Your task to perform on an android device: turn on bluetooth scan Image 0: 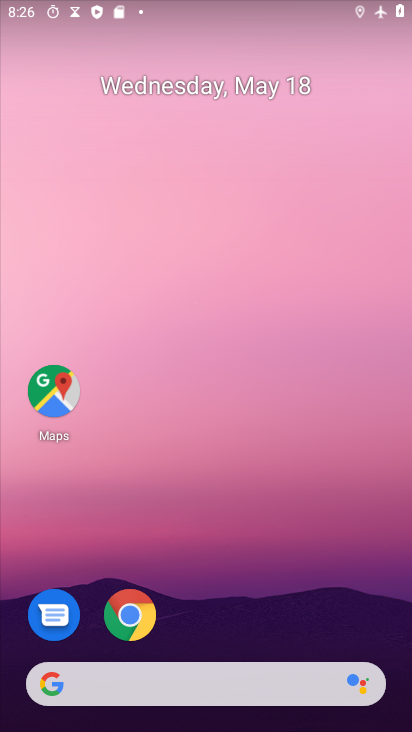
Step 0: drag from (243, 610) to (268, 123)
Your task to perform on an android device: turn on bluetooth scan Image 1: 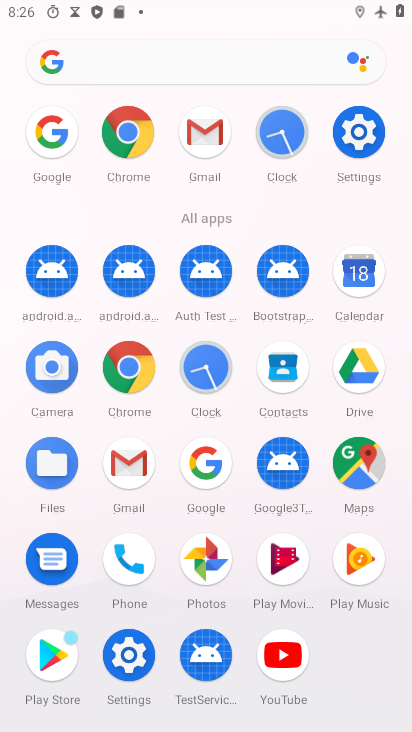
Step 1: click (368, 141)
Your task to perform on an android device: turn on bluetooth scan Image 2: 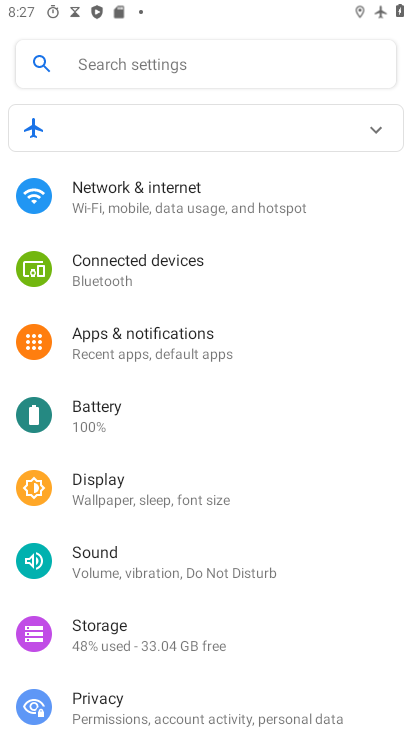
Step 2: drag from (236, 642) to (214, 309)
Your task to perform on an android device: turn on bluetooth scan Image 3: 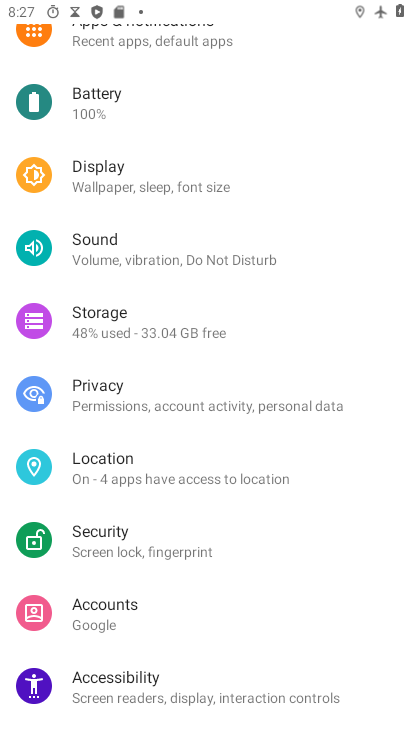
Step 3: click (198, 475)
Your task to perform on an android device: turn on bluetooth scan Image 4: 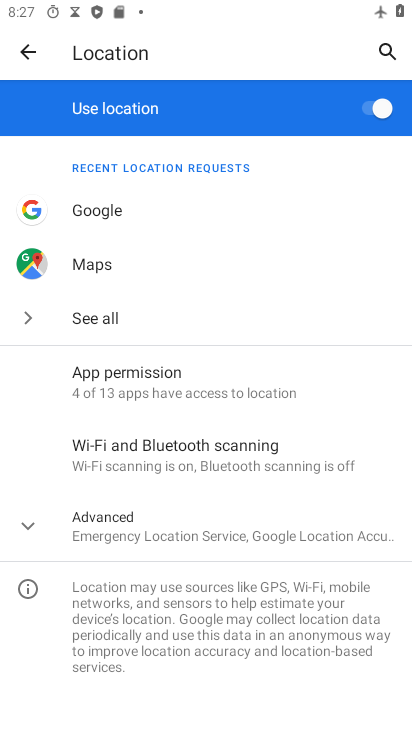
Step 4: click (158, 448)
Your task to perform on an android device: turn on bluetooth scan Image 5: 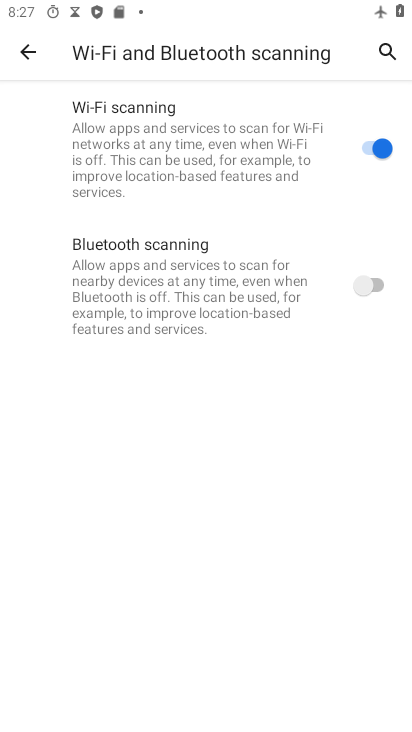
Step 5: click (360, 282)
Your task to perform on an android device: turn on bluetooth scan Image 6: 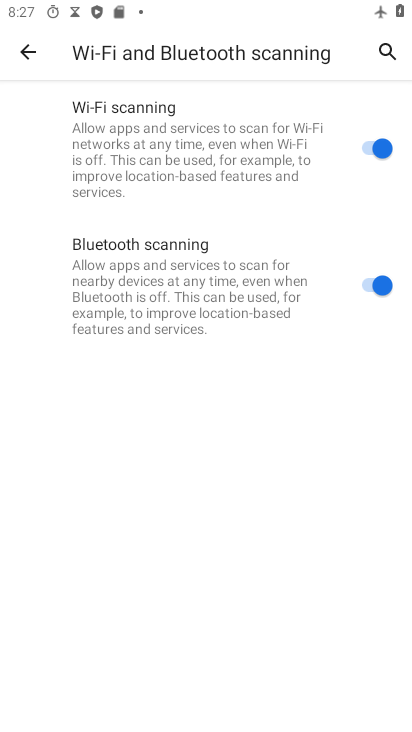
Step 6: task complete